Your task to perform on an android device: Is it going to rain this weekend? Image 0: 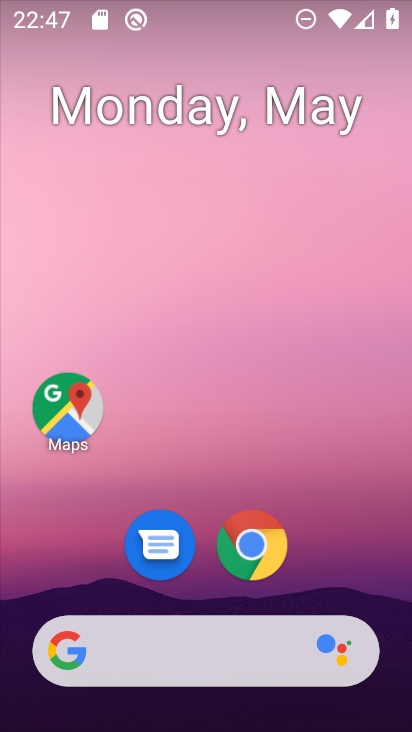
Step 0: click (225, 653)
Your task to perform on an android device: Is it going to rain this weekend? Image 1: 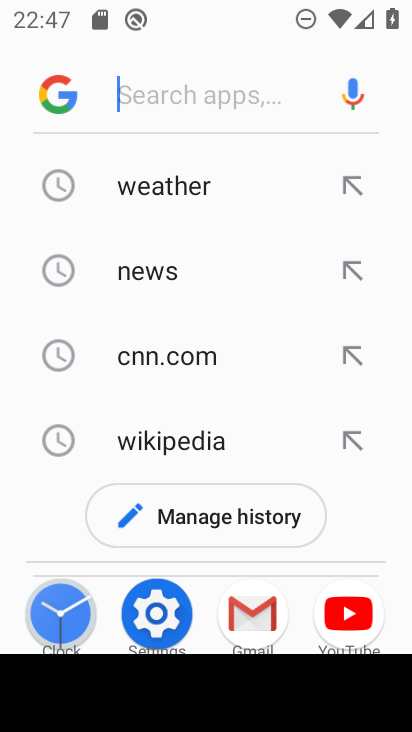
Step 1: click (171, 186)
Your task to perform on an android device: Is it going to rain this weekend? Image 2: 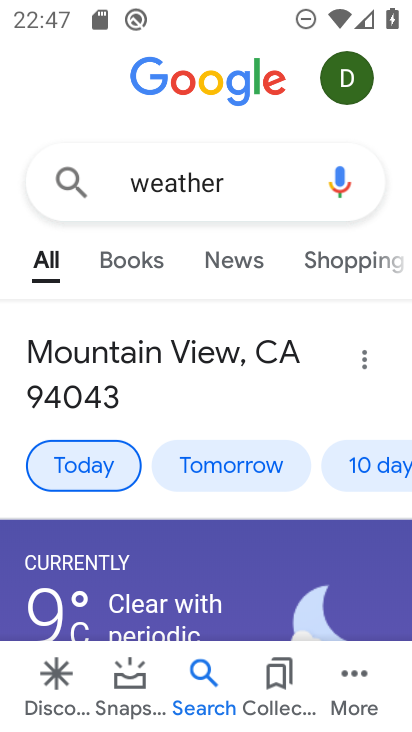
Step 2: click (352, 462)
Your task to perform on an android device: Is it going to rain this weekend? Image 3: 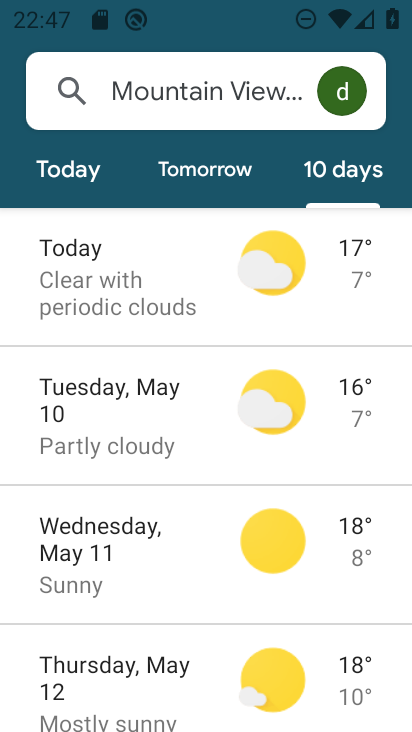
Step 3: task complete